Your task to perform on an android device: turn on showing notifications on the lock screen Image 0: 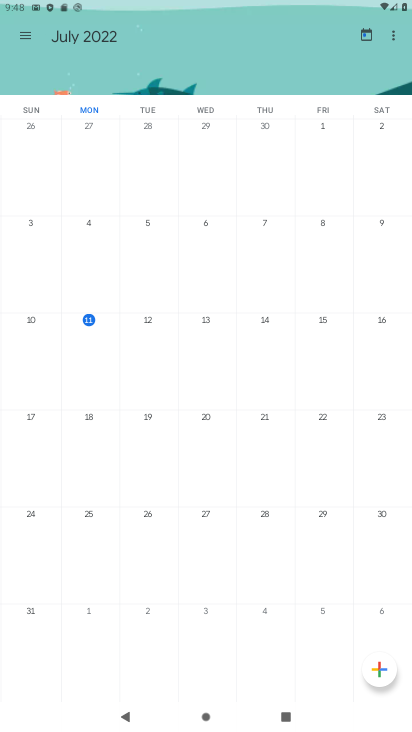
Step 0: press home button
Your task to perform on an android device: turn on showing notifications on the lock screen Image 1: 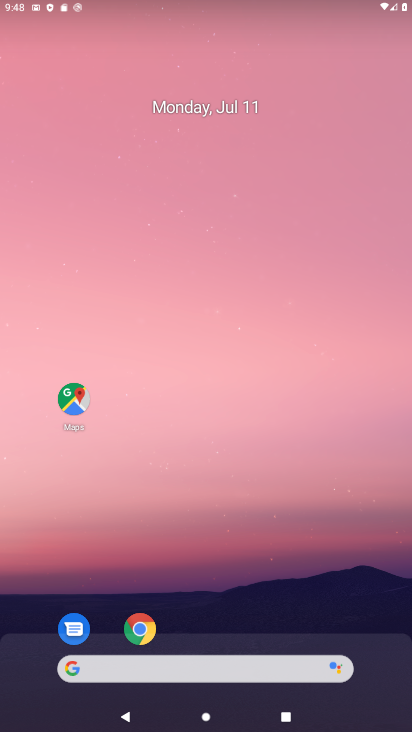
Step 1: drag from (196, 605) to (209, 192)
Your task to perform on an android device: turn on showing notifications on the lock screen Image 2: 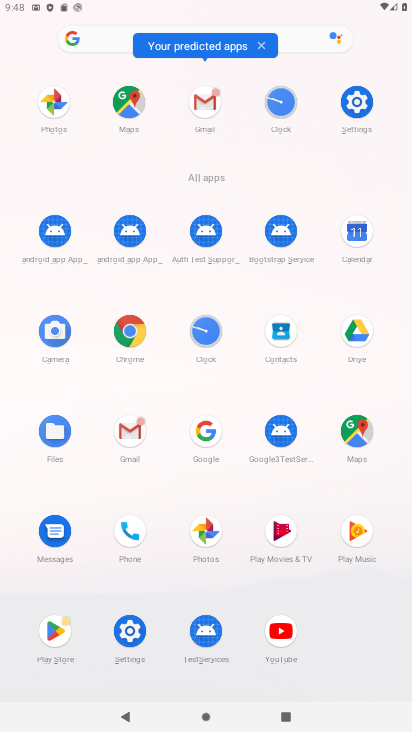
Step 2: click (341, 95)
Your task to perform on an android device: turn on showing notifications on the lock screen Image 3: 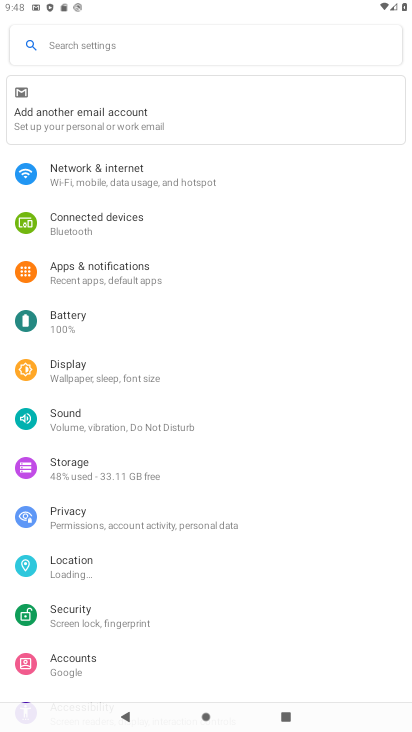
Step 3: click (183, 279)
Your task to perform on an android device: turn on showing notifications on the lock screen Image 4: 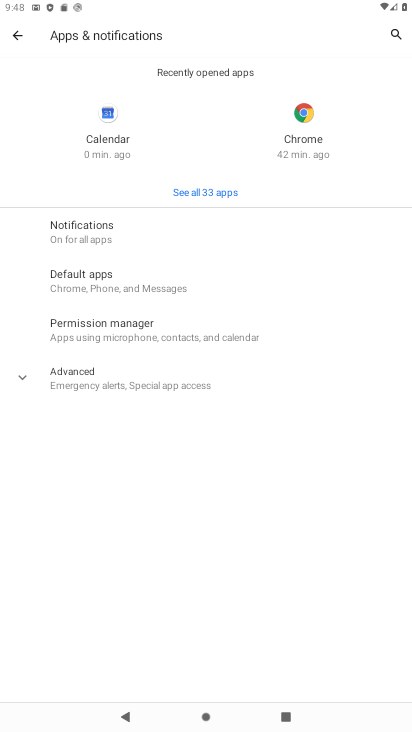
Step 4: click (142, 244)
Your task to perform on an android device: turn on showing notifications on the lock screen Image 5: 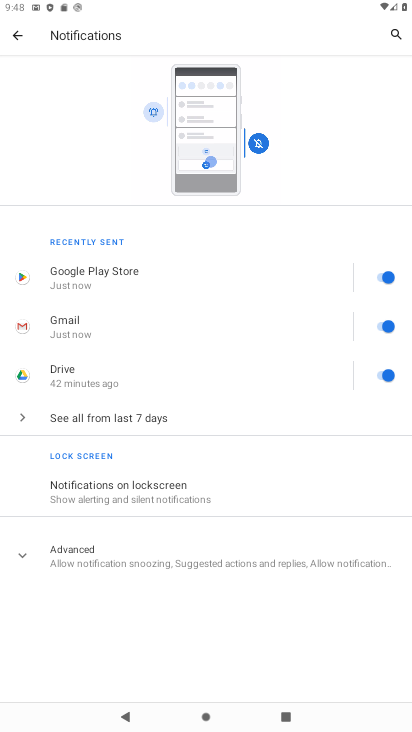
Step 5: click (204, 500)
Your task to perform on an android device: turn on showing notifications on the lock screen Image 6: 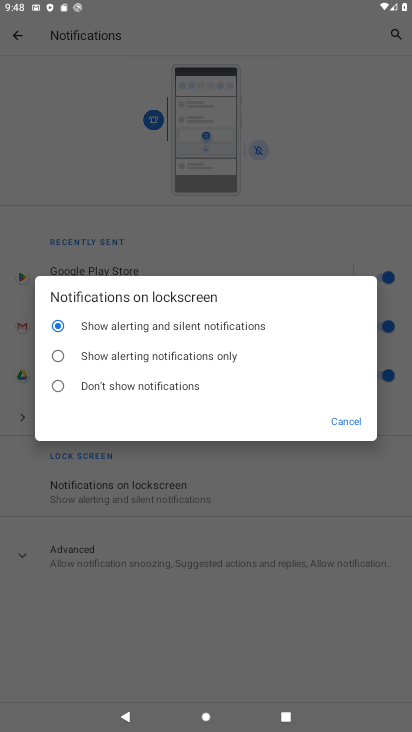
Step 6: task complete